Your task to perform on an android device: Open the map Image 0: 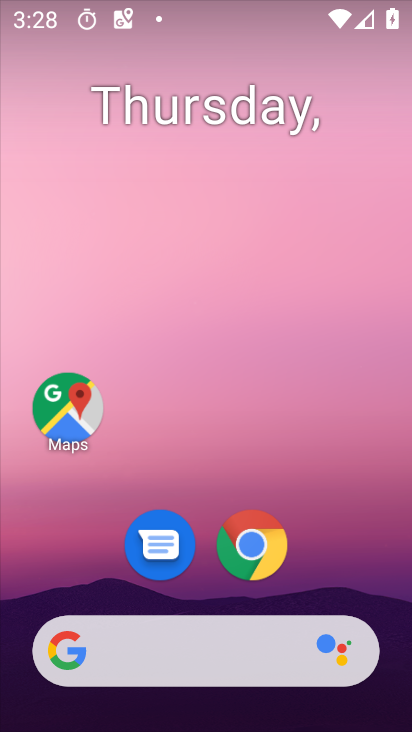
Step 0: drag from (209, 725) to (211, 35)
Your task to perform on an android device: Open the map Image 1: 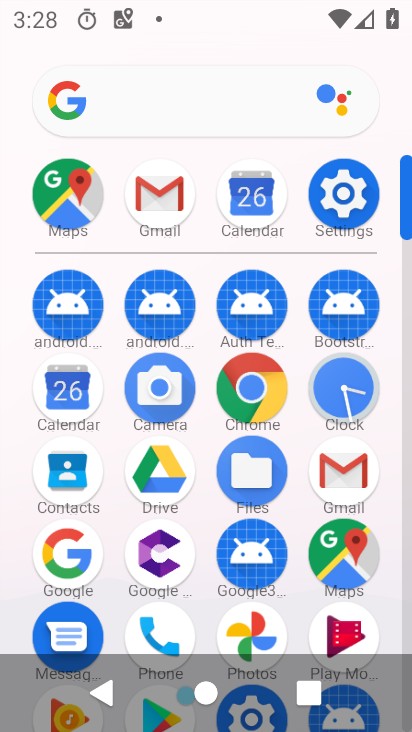
Step 1: click (346, 557)
Your task to perform on an android device: Open the map Image 2: 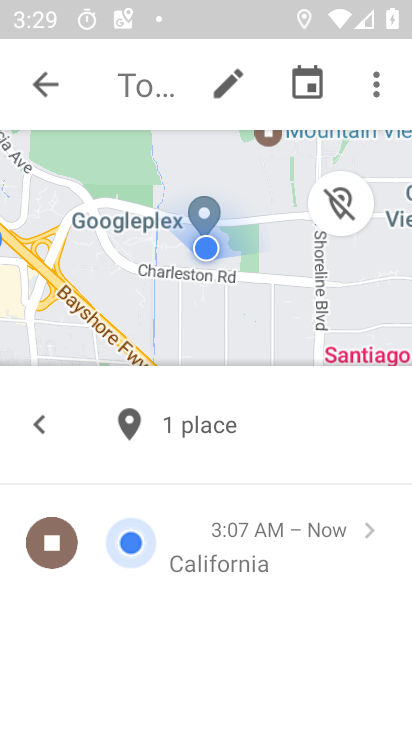
Step 2: task complete